Your task to perform on an android device: Open the calendar app, open the side menu, and click the "Day" option Image 0: 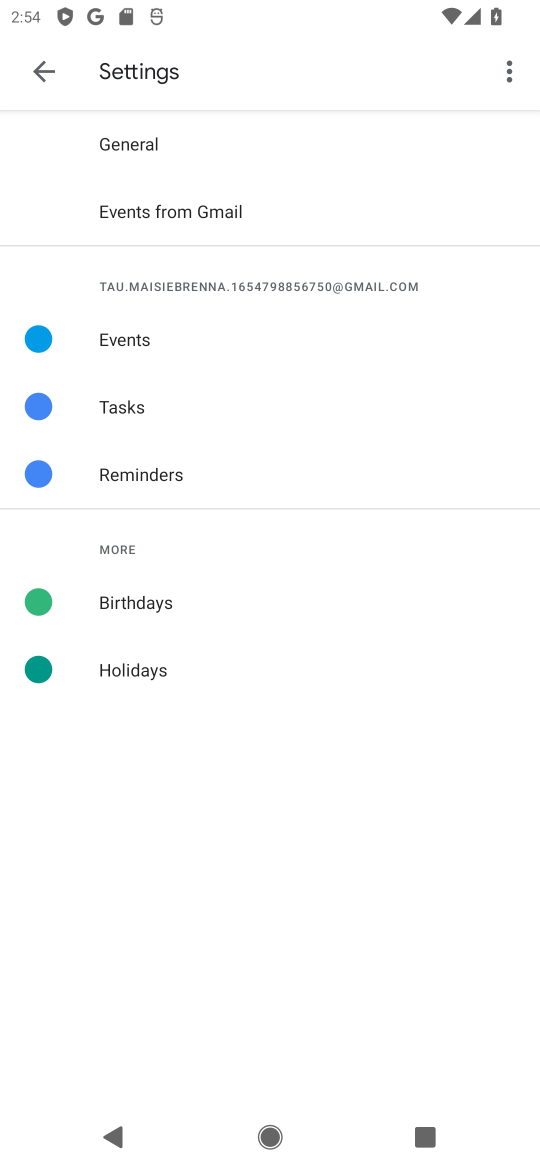
Step 0: press home button
Your task to perform on an android device: Open the calendar app, open the side menu, and click the "Day" option Image 1: 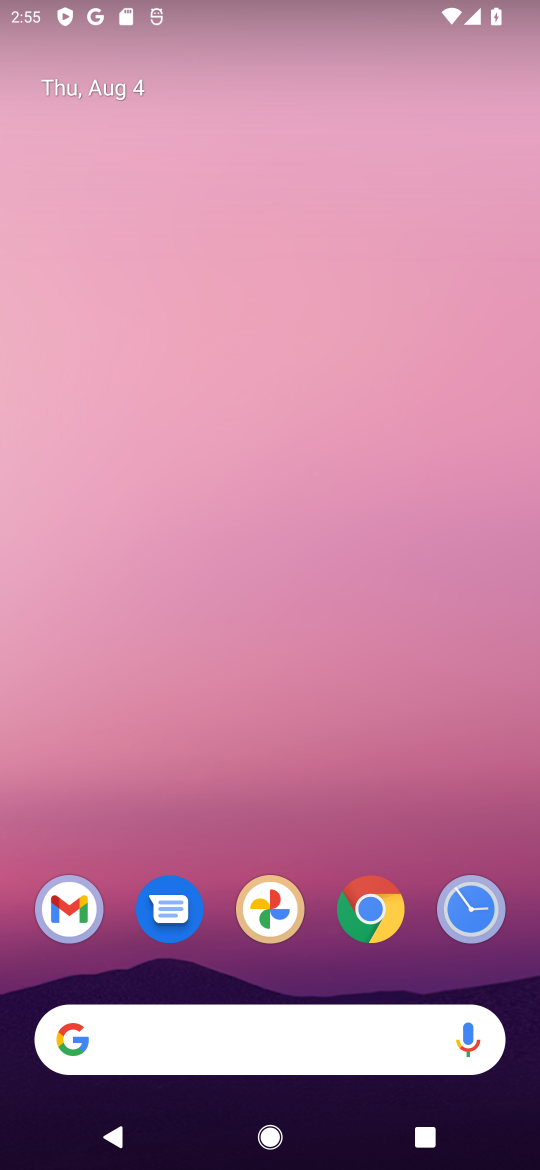
Step 1: drag from (295, 1041) to (499, 296)
Your task to perform on an android device: Open the calendar app, open the side menu, and click the "Day" option Image 2: 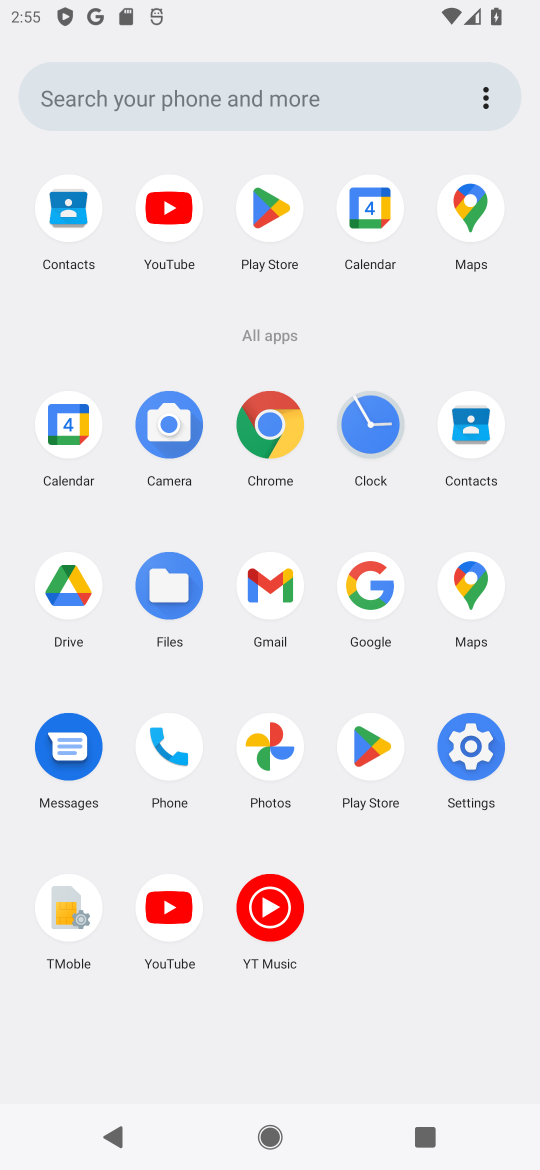
Step 2: click (374, 217)
Your task to perform on an android device: Open the calendar app, open the side menu, and click the "Day" option Image 3: 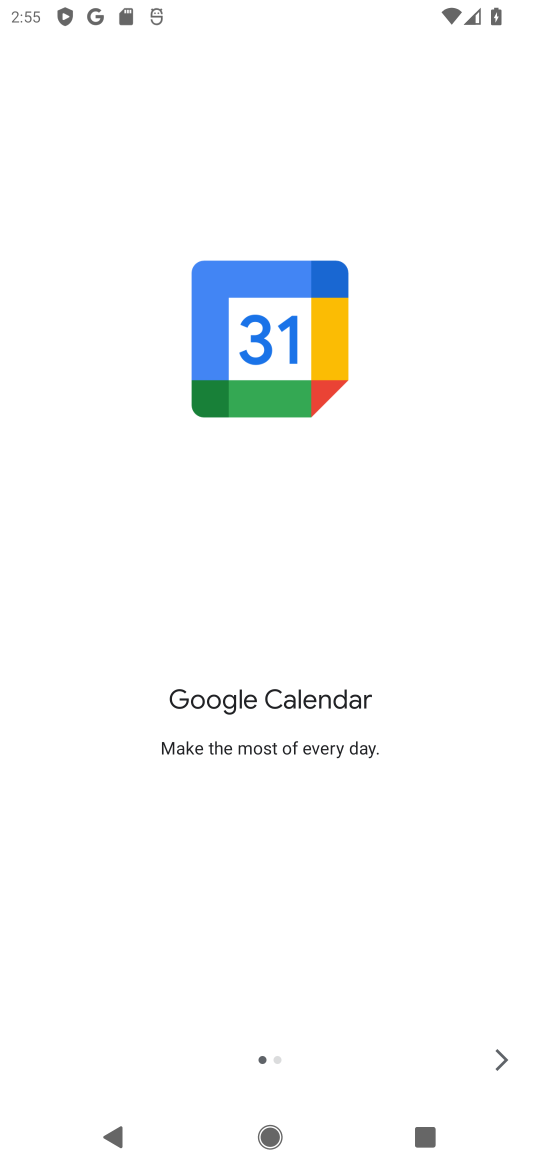
Step 3: click (501, 1060)
Your task to perform on an android device: Open the calendar app, open the side menu, and click the "Day" option Image 4: 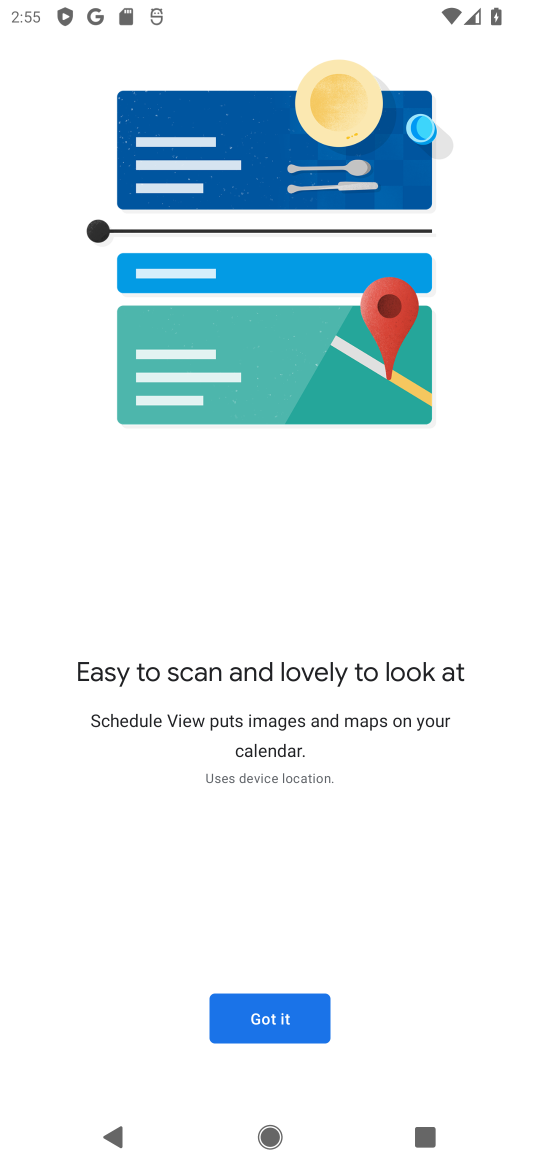
Step 4: click (275, 1019)
Your task to perform on an android device: Open the calendar app, open the side menu, and click the "Day" option Image 5: 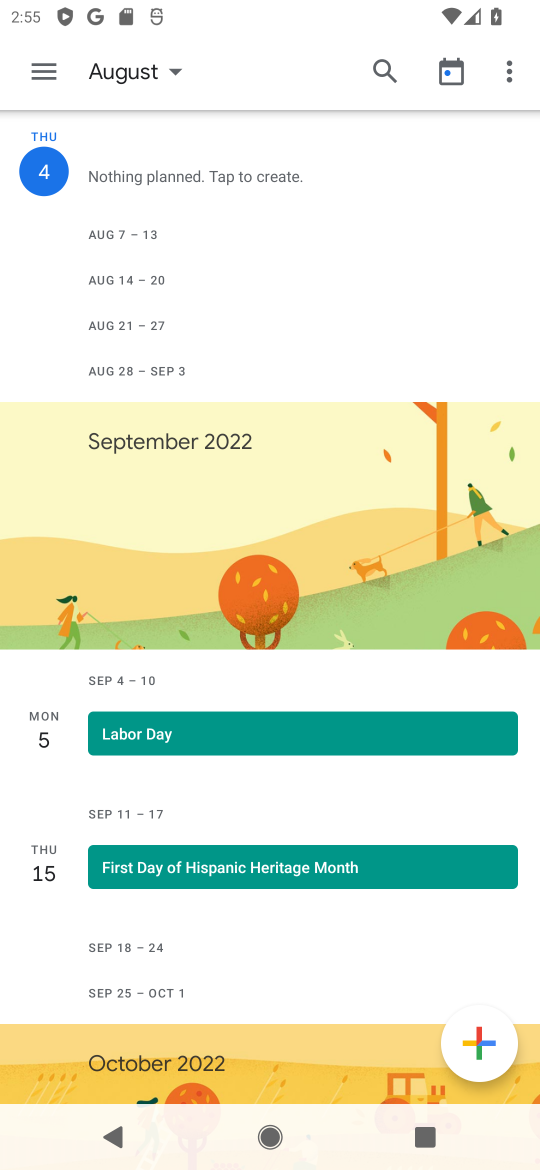
Step 5: click (39, 72)
Your task to perform on an android device: Open the calendar app, open the side menu, and click the "Day" option Image 6: 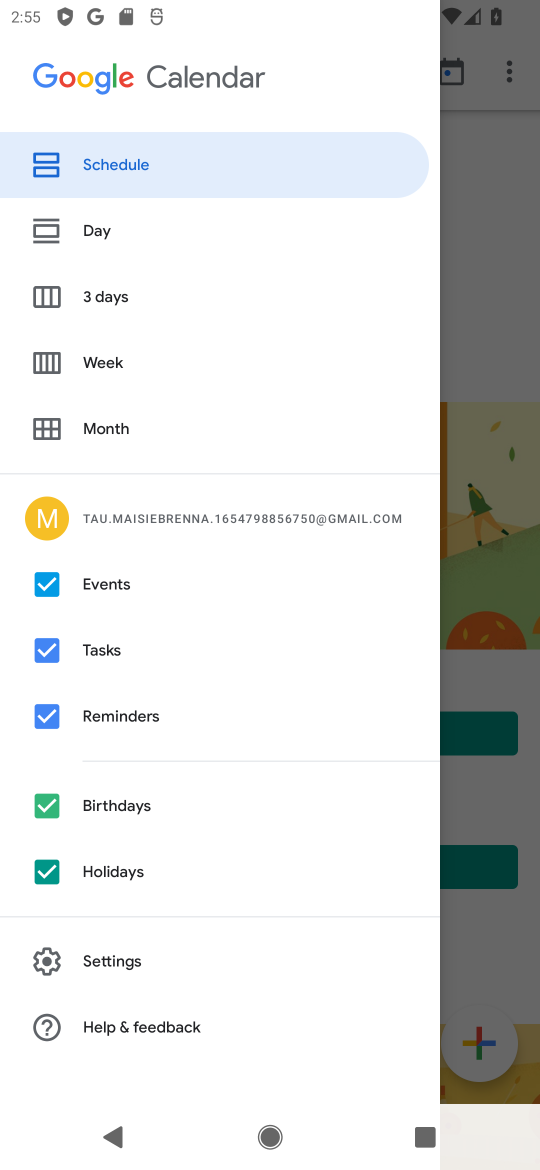
Step 6: click (105, 227)
Your task to perform on an android device: Open the calendar app, open the side menu, and click the "Day" option Image 7: 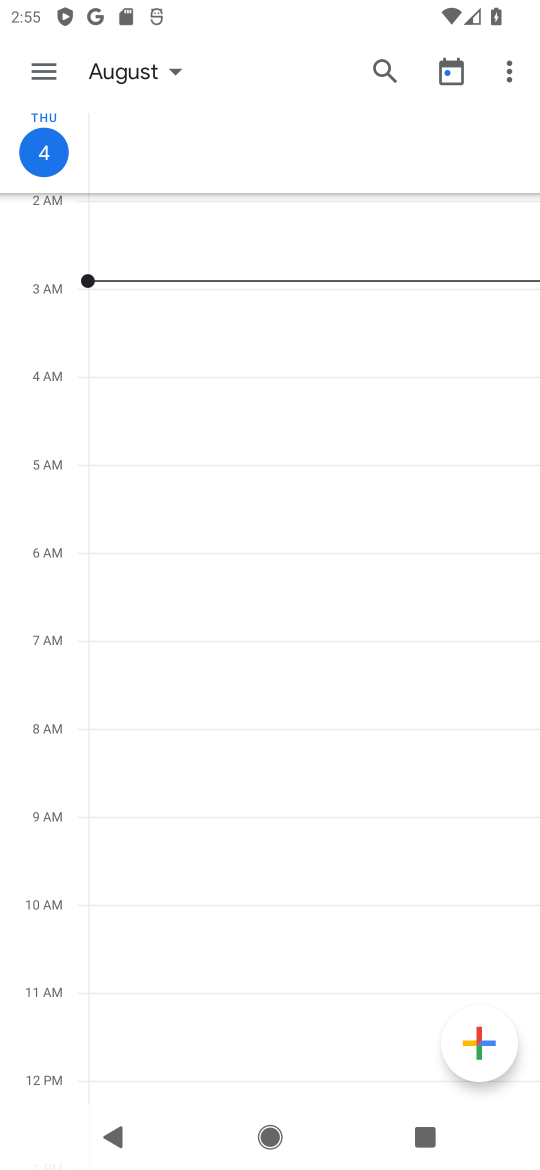
Step 7: task complete